Your task to perform on an android device: find snoozed emails in the gmail app Image 0: 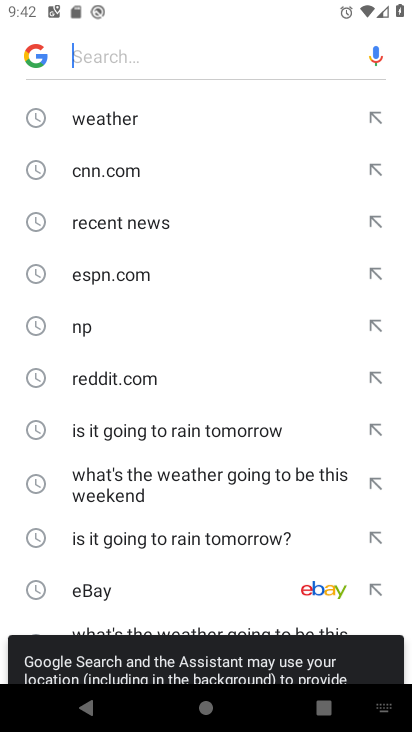
Step 0: press home button
Your task to perform on an android device: find snoozed emails in the gmail app Image 1: 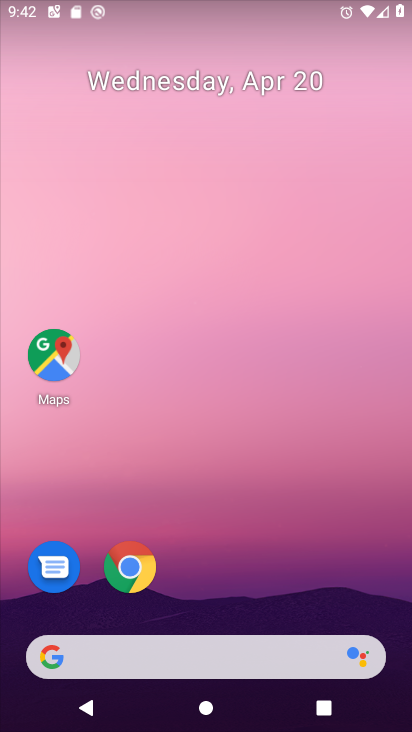
Step 1: drag from (335, 582) to (337, 208)
Your task to perform on an android device: find snoozed emails in the gmail app Image 2: 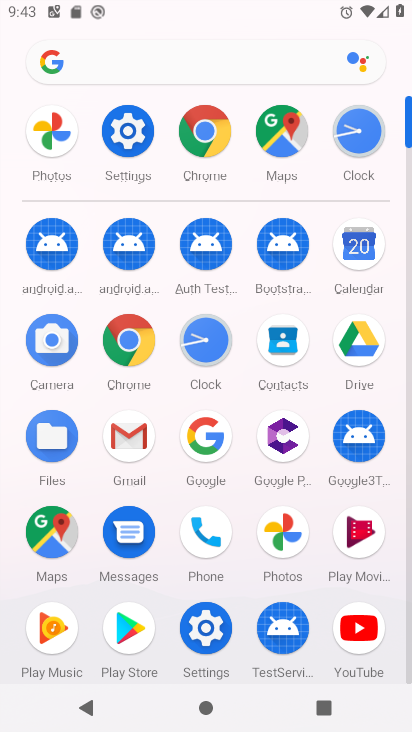
Step 2: click (131, 442)
Your task to perform on an android device: find snoozed emails in the gmail app Image 3: 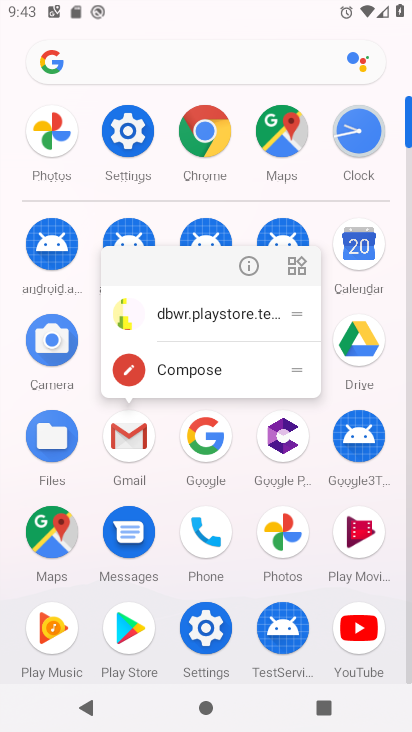
Step 3: click (133, 443)
Your task to perform on an android device: find snoozed emails in the gmail app Image 4: 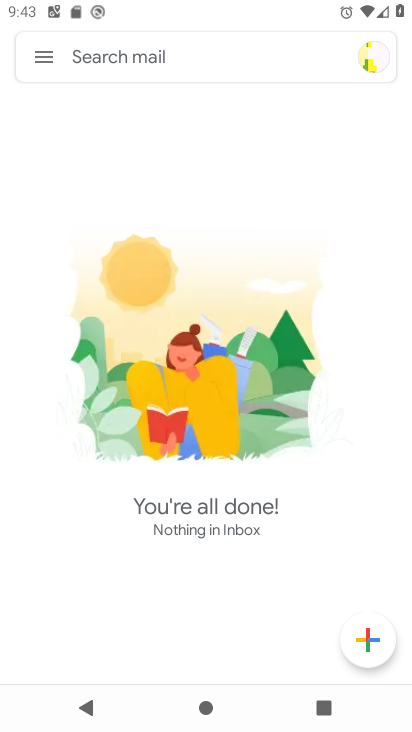
Step 4: click (32, 57)
Your task to perform on an android device: find snoozed emails in the gmail app Image 5: 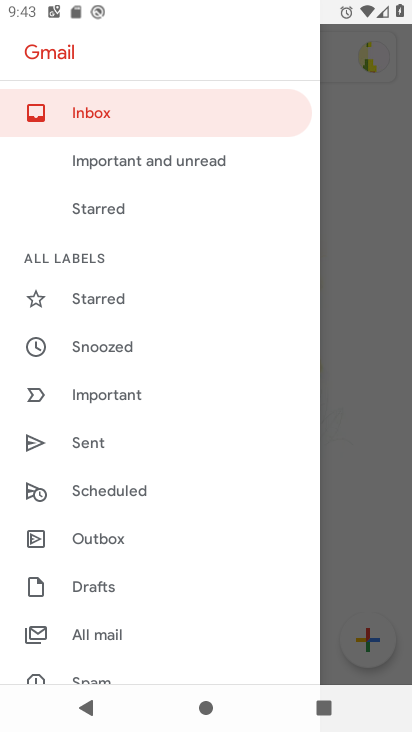
Step 5: drag from (238, 516) to (239, 351)
Your task to perform on an android device: find snoozed emails in the gmail app Image 6: 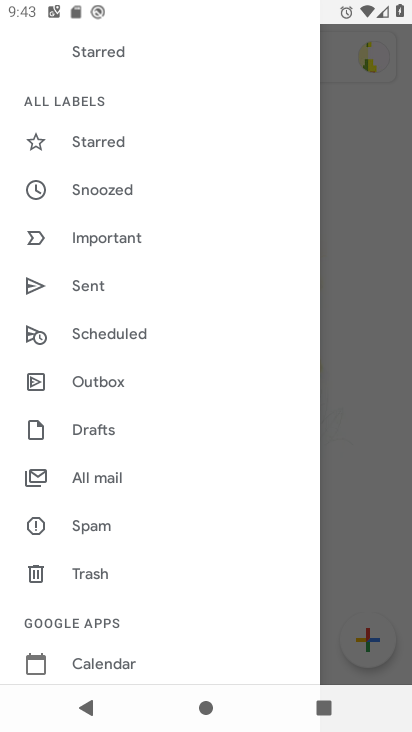
Step 6: drag from (253, 551) to (252, 344)
Your task to perform on an android device: find snoozed emails in the gmail app Image 7: 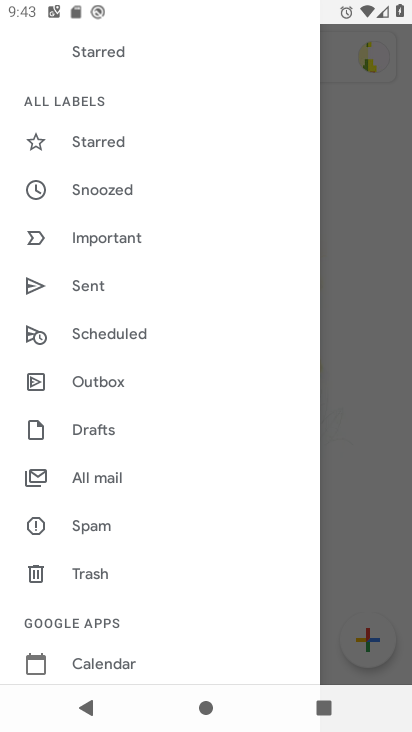
Step 7: drag from (230, 609) to (258, 355)
Your task to perform on an android device: find snoozed emails in the gmail app Image 8: 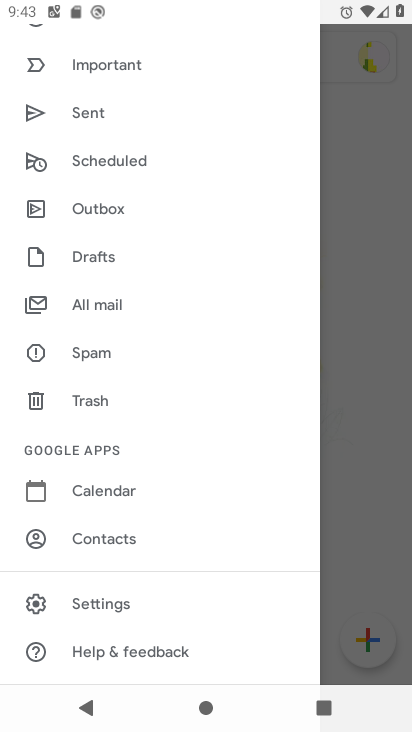
Step 8: drag from (242, 526) to (239, 327)
Your task to perform on an android device: find snoozed emails in the gmail app Image 9: 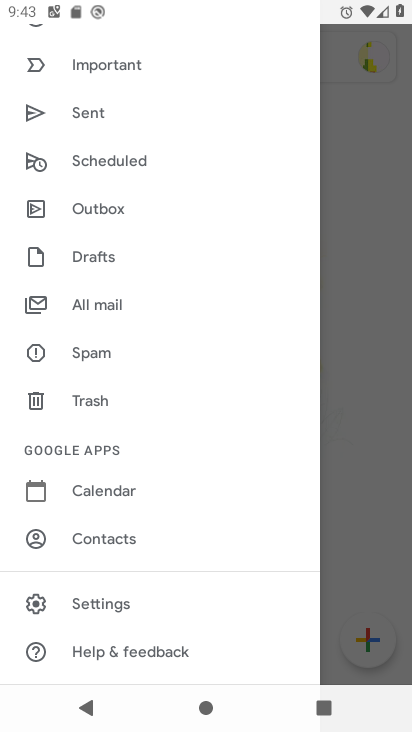
Step 9: drag from (248, 207) to (233, 407)
Your task to perform on an android device: find snoozed emails in the gmail app Image 10: 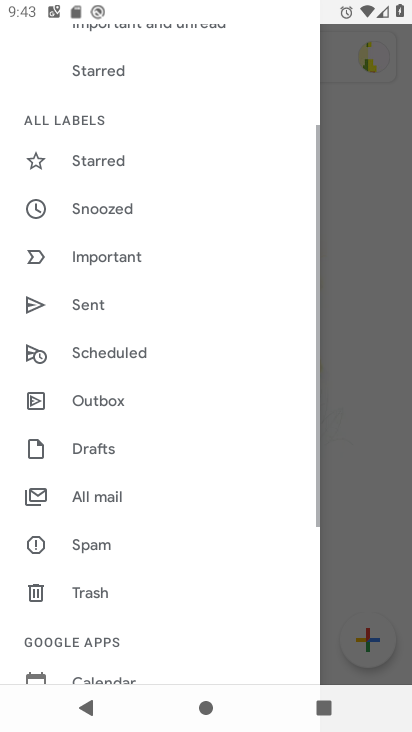
Step 10: drag from (244, 278) to (234, 425)
Your task to perform on an android device: find snoozed emails in the gmail app Image 11: 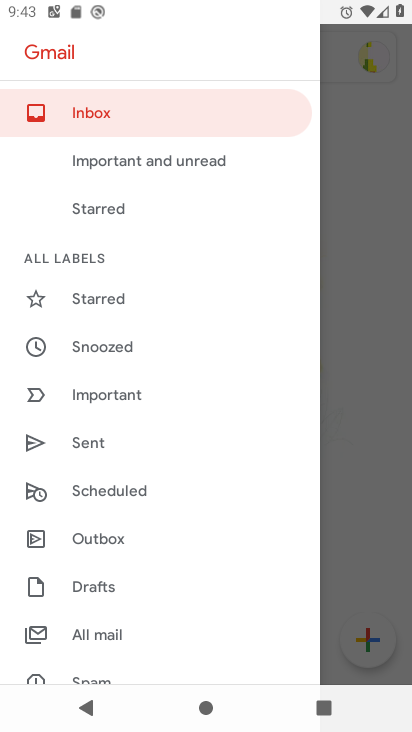
Step 11: click (121, 345)
Your task to perform on an android device: find snoozed emails in the gmail app Image 12: 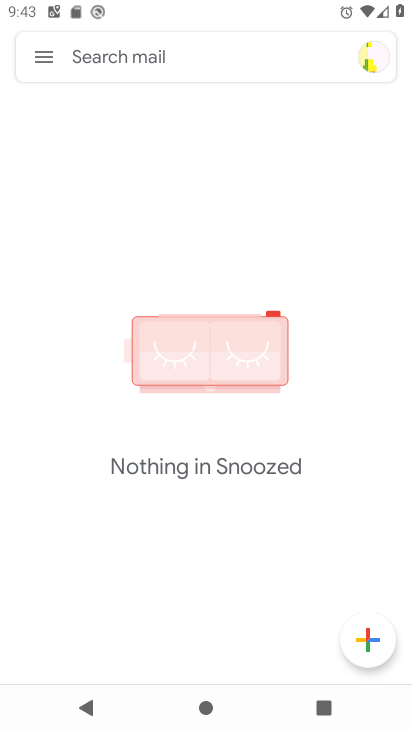
Step 12: task complete